Your task to perform on an android device: move a message to another label in the gmail app Image 0: 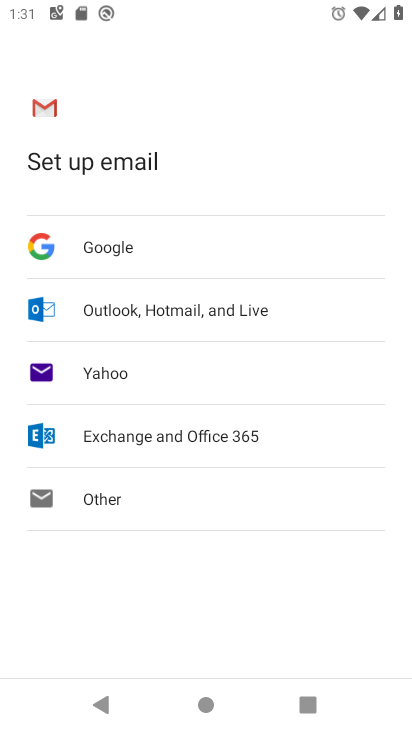
Step 0: press home button
Your task to perform on an android device: move a message to another label in the gmail app Image 1: 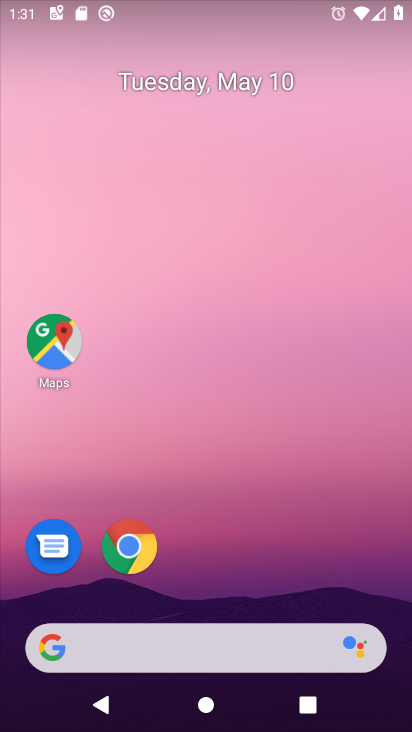
Step 1: drag from (369, 568) to (287, 33)
Your task to perform on an android device: move a message to another label in the gmail app Image 2: 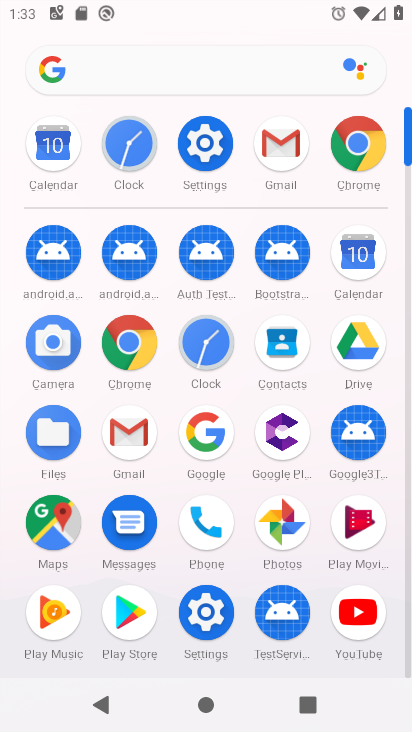
Step 2: click (126, 444)
Your task to perform on an android device: move a message to another label in the gmail app Image 3: 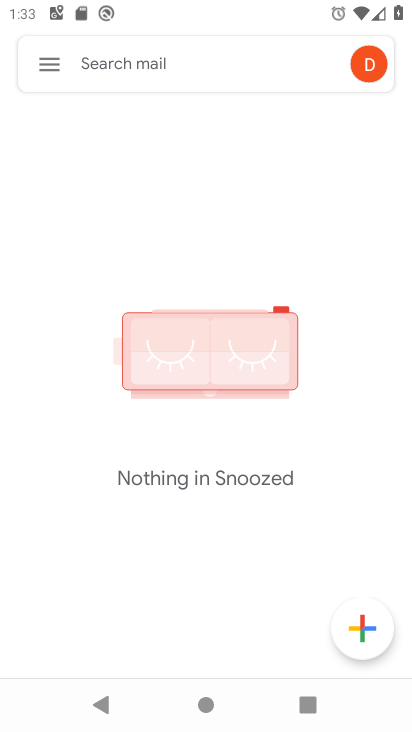
Step 3: click (37, 73)
Your task to perform on an android device: move a message to another label in the gmail app Image 4: 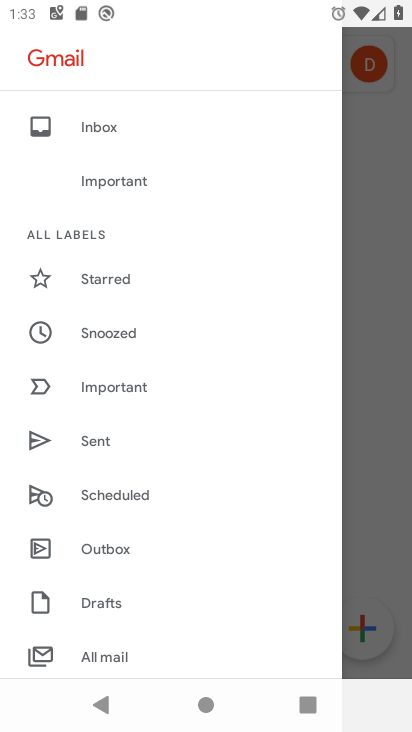
Step 4: task complete